Your task to perform on an android device: Open settings on Google Maps Image 0: 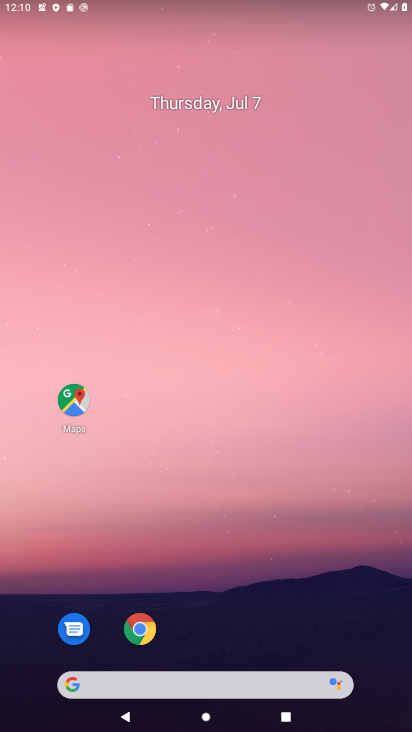
Step 0: click (70, 398)
Your task to perform on an android device: Open settings on Google Maps Image 1: 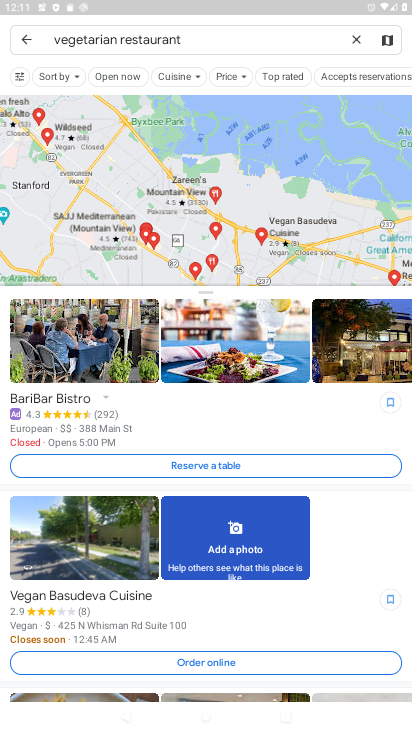
Step 1: click (28, 35)
Your task to perform on an android device: Open settings on Google Maps Image 2: 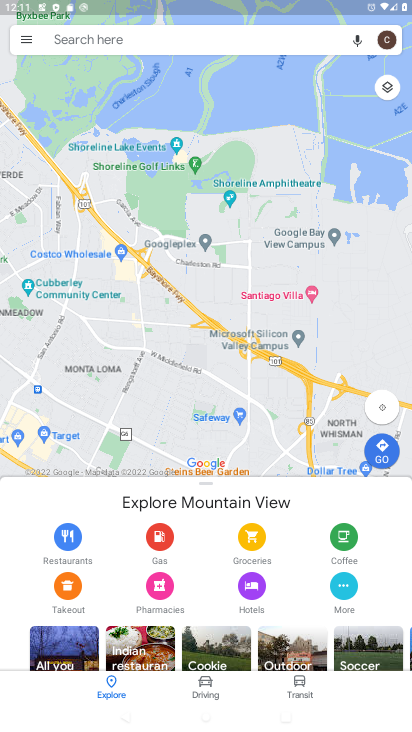
Step 2: click (29, 29)
Your task to perform on an android device: Open settings on Google Maps Image 3: 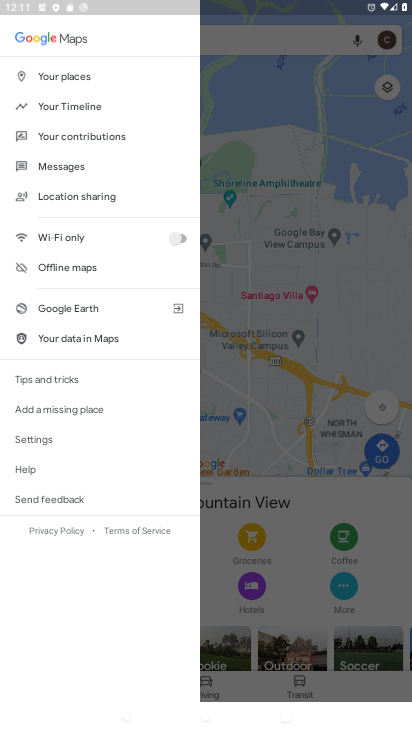
Step 3: click (35, 440)
Your task to perform on an android device: Open settings on Google Maps Image 4: 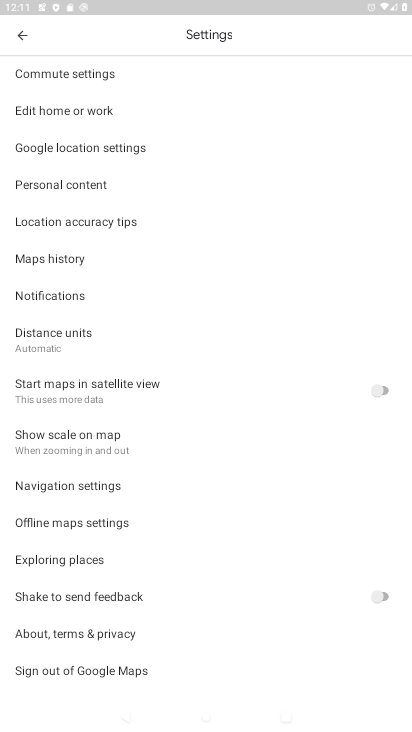
Step 4: task complete